Your task to perform on an android device: change keyboard looks Image 0: 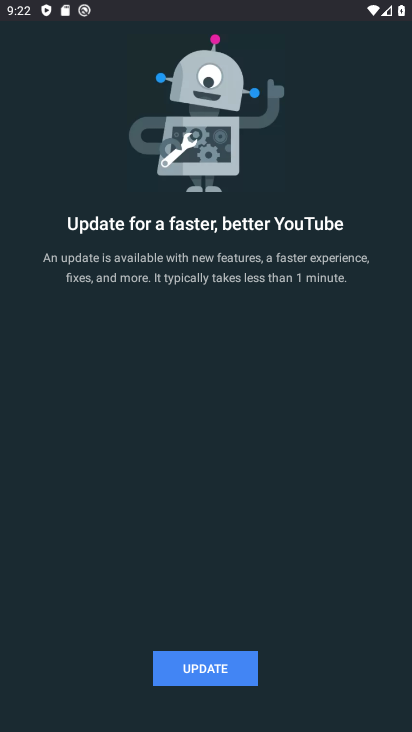
Step 0: press home button
Your task to perform on an android device: change keyboard looks Image 1: 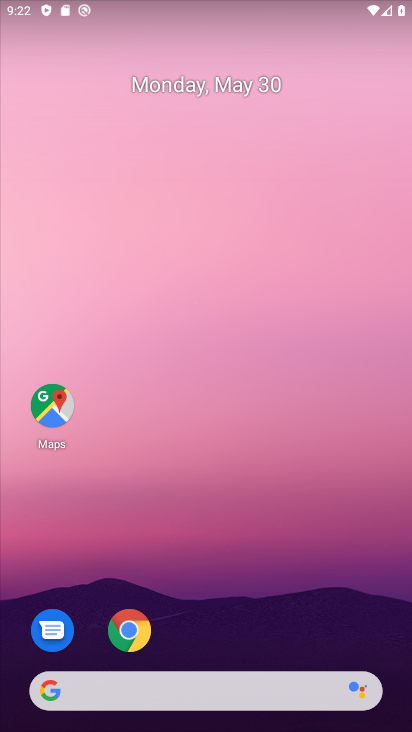
Step 1: drag from (224, 654) to (216, 137)
Your task to perform on an android device: change keyboard looks Image 2: 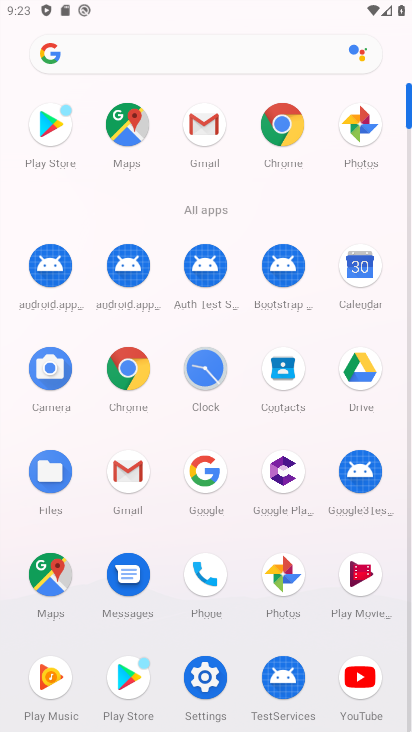
Step 2: click (220, 671)
Your task to perform on an android device: change keyboard looks Image 3: 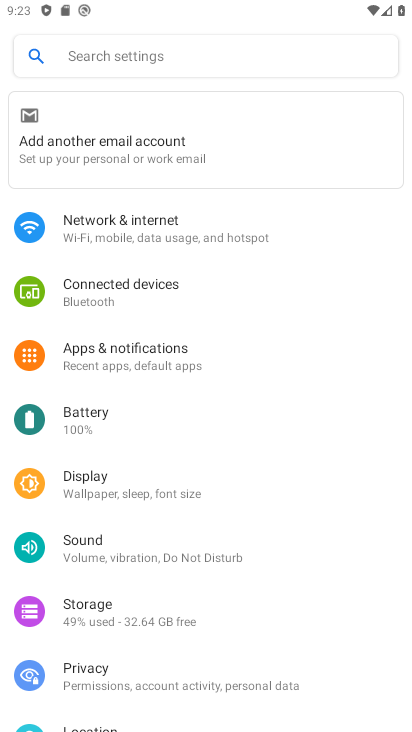
Step 3: drag from (170, 548) to (167, 134)
Your task to perform on an android device: change keyboard looks Image 4: 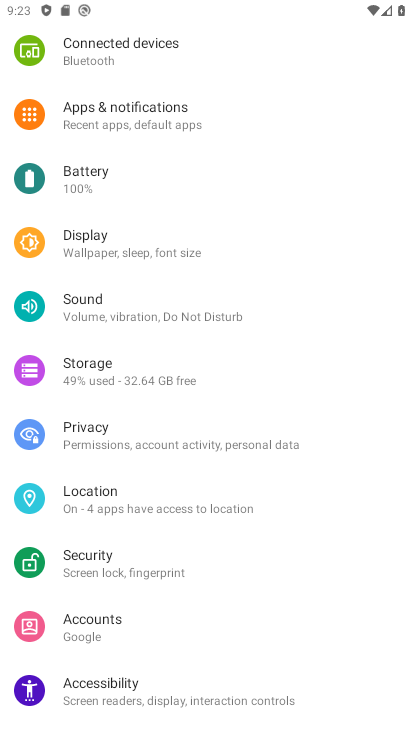
Step 4: drag from (145, 677) to (187, 338)
Your task to perform on an android device: change keyboard looks Image 5: 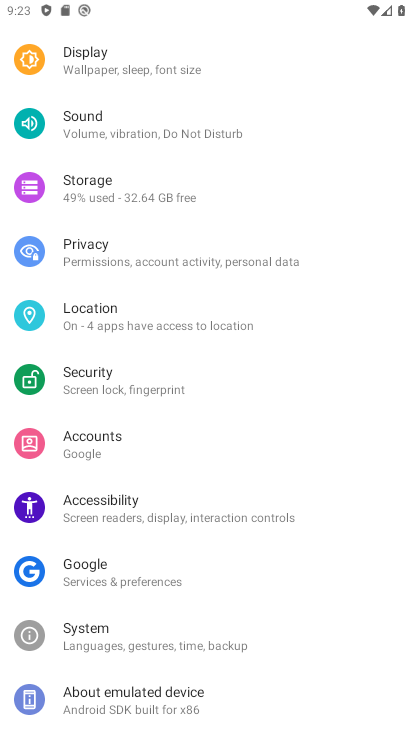
Step 5: click (84, 675)
Your task to perform on an android device: change keyboard looks Image 6: 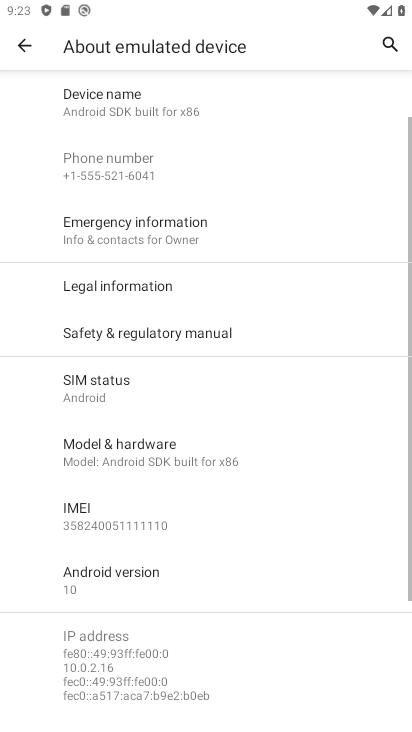
Step 6: task complete